Your task to perform on an android device: delete browsing data in the chrome app Image 0: 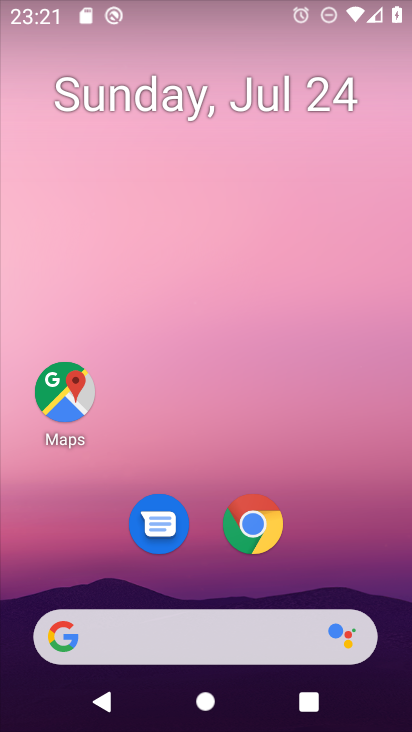
Step 0: click (253, 525)
Your task to perform on an android device: delete browsing data in the chrome app Image 1: 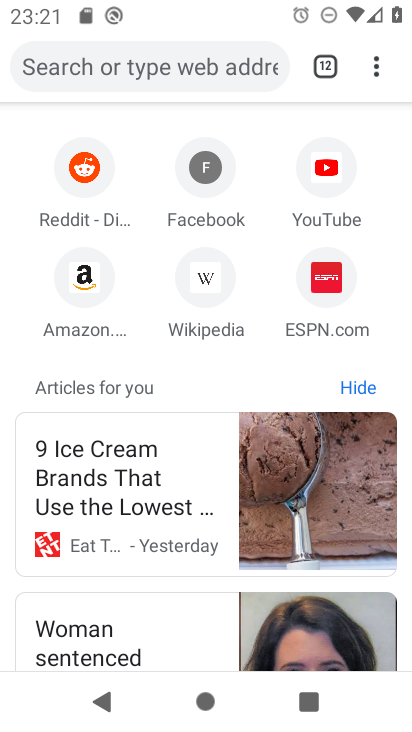
Step 1: drag from (376, 74) to (289, 574)
Your task to perform on an android device: delete browsing data in the chrome app Image 2: 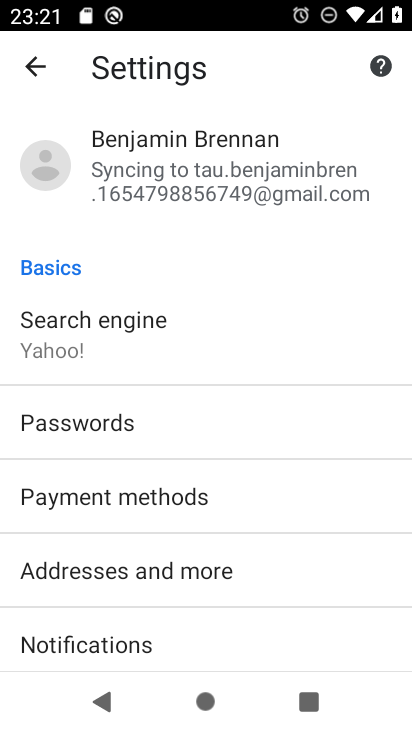
Step 2: drag from (270, 601) to (366, 221)
Your task to perform on an android device: delete browsing data in the chrome app Image 3: 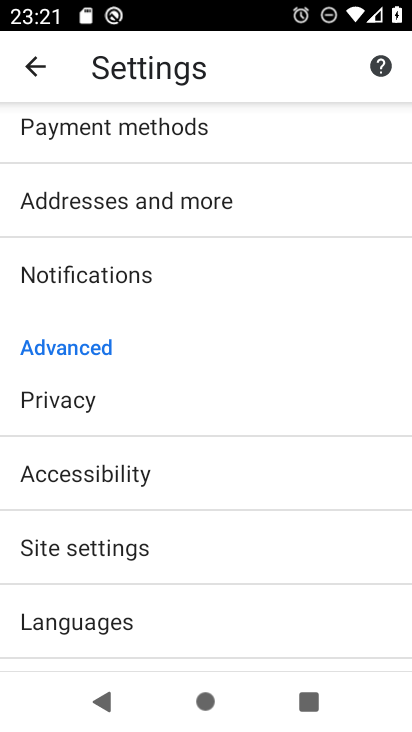
Step 3: click (80, 395)
Your task to perform on an android device: delete browsing data in the chrome app Image 4: 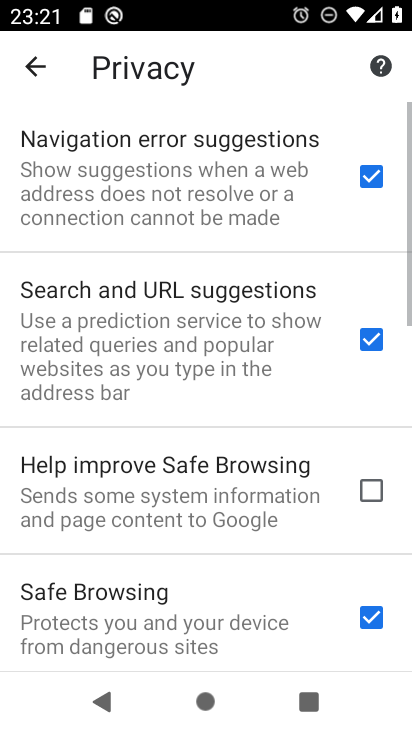
Step 4: drag from (187, 611) to (272, 77)
Your task to perform on an android device: delete browsing data in the chrome app Image 5: 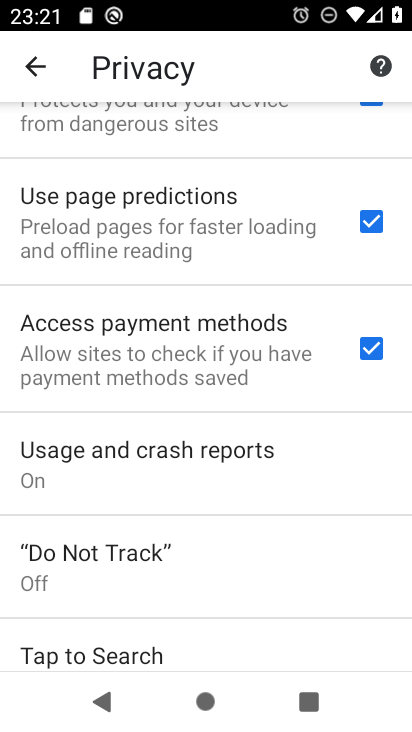
Step 5: drag from (220, 545) to (303, 103)
Your task to perform on an android device: delete browsing data in the chrome app Image 6: 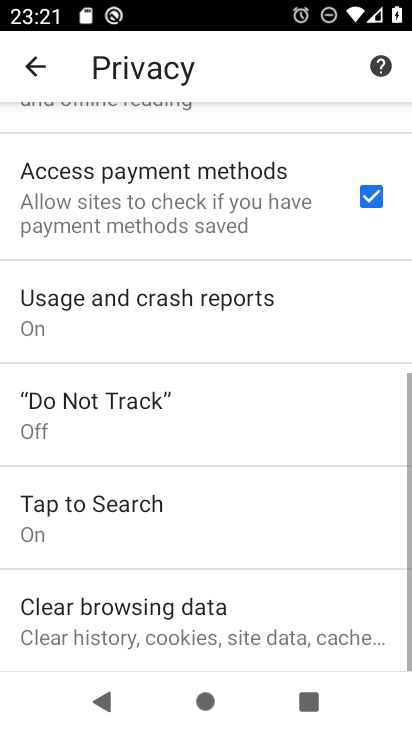
Step 6: click (180, 629)
Your task to perform on an android device: delete browsing data in the chrome app Image 7: 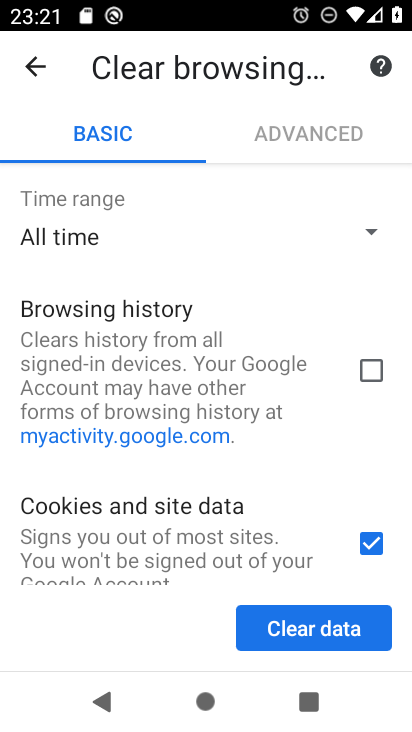
Step 7: drag from (164, 525) to (250, 190)
Your task to perform on an android device: delete browsing data in the chrome app Image 8: 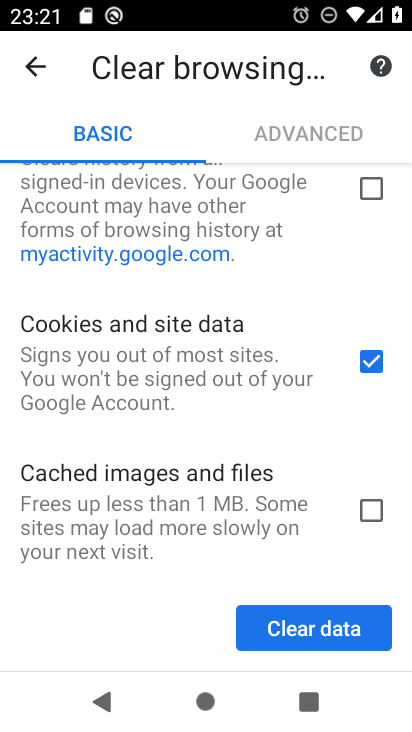
Step 8: click (376, 193)
Your task to perform on an android device: delete browsing data in the chrome app Image 9: 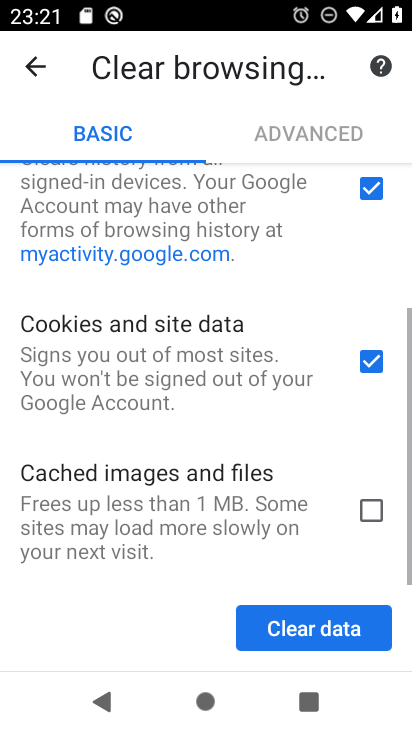
Step 9: click (377, 516)
Your task to perform on an android device: delete browsing data in the chrome app Image 10: 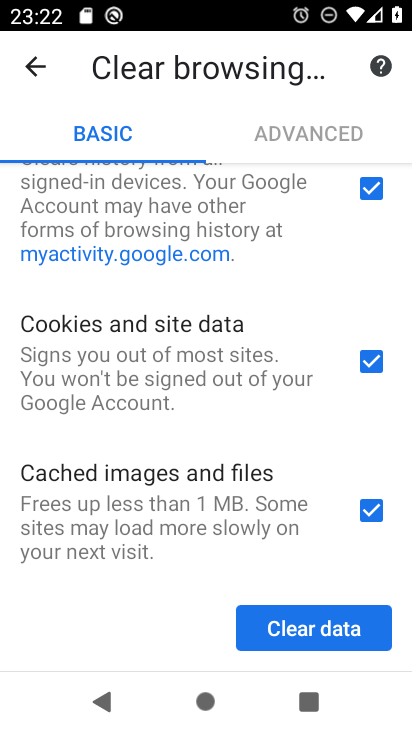
Step 10: click (302, 631)
Your task to perform on an android device: delete browsing data in the chrome app Image 11: 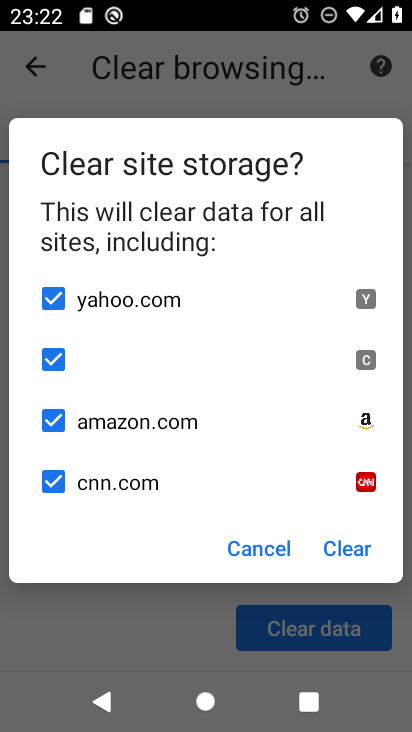
Step 11: click (320, 554)
Your task to perform on an android device: delete browsing data in the chrome app Image 12: 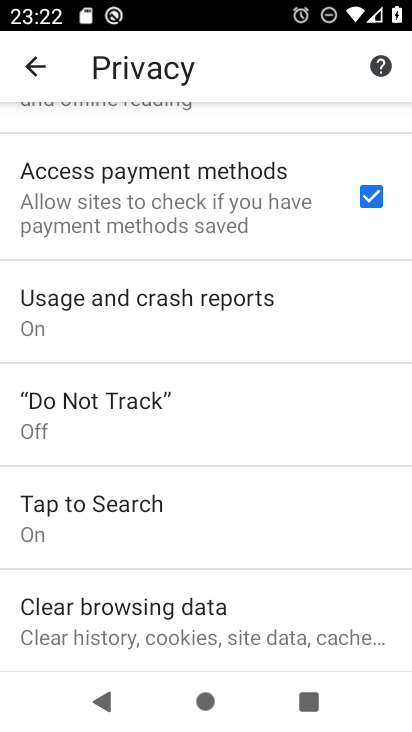
Step 12: task complete